Your task to perform on an android device: Open eBay Image 0: 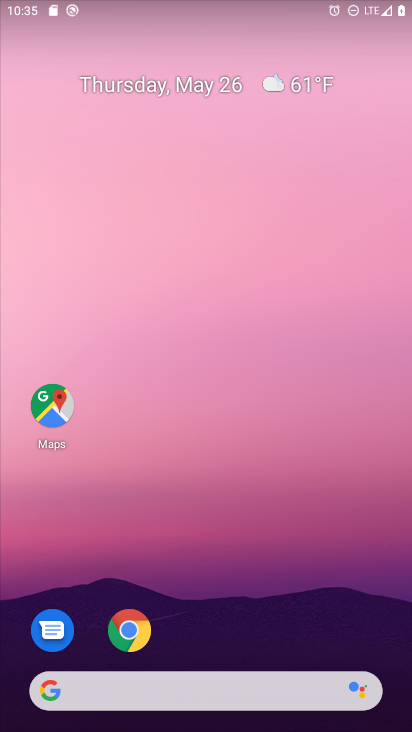
Step 0: click (135, 630)
Your task to perform on an android device: Open eBay Image 1: 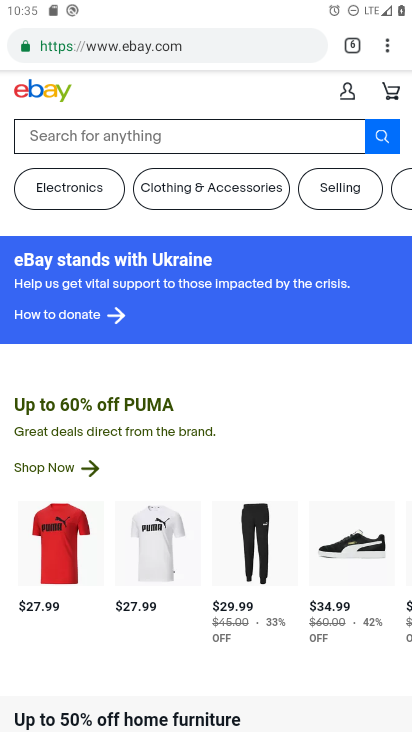
Step 1: task complete